Your task to perform on an android device: change alarm snooze length Image 0: 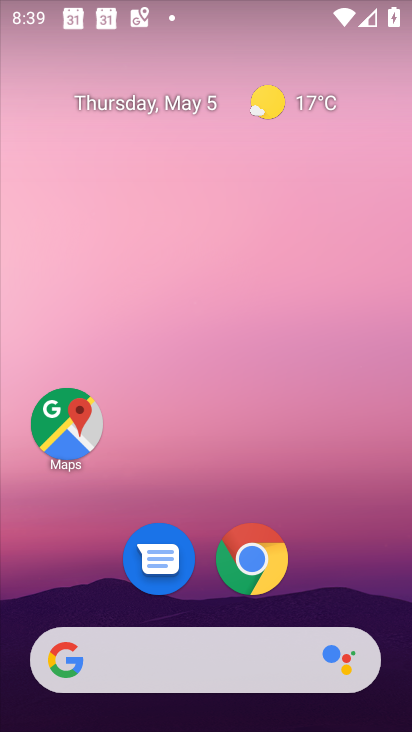
Step 0: drag from (368, 625) to (351, 2)
Your task to perform on an android device: change alarm snooze length Image 1: 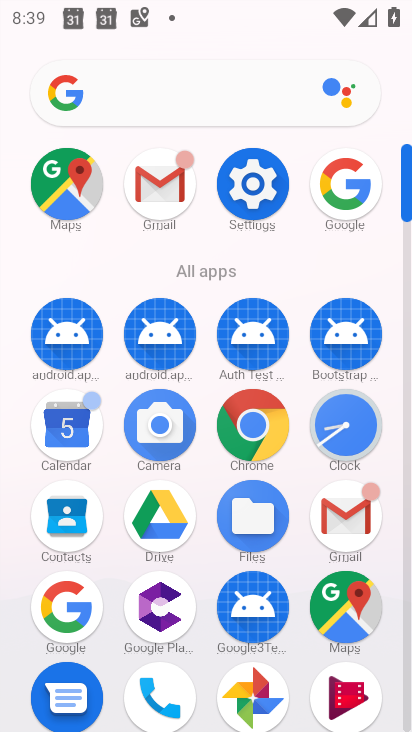
Step 1: click (345, 430)
Your task to perform on an android device: change alarm snooze length Image 2: 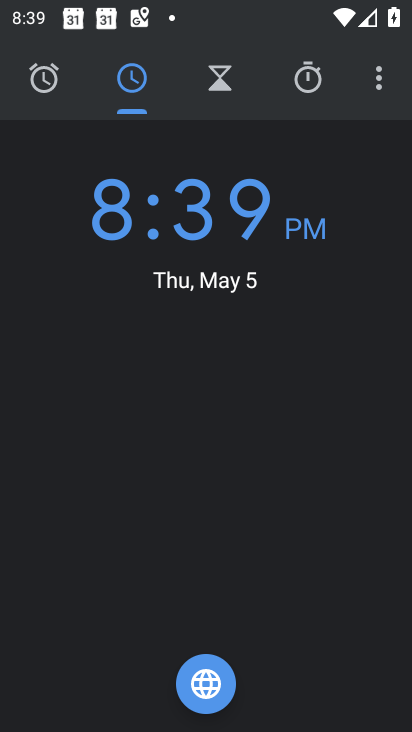
Step 2: click (376, 83)
Your task to perform on an android device: change alarm snooze length Image 3: 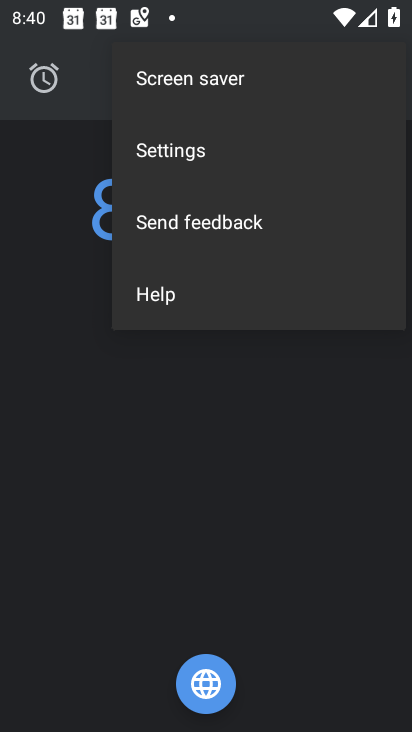
Step 3: click (170, 167)
Your task to perform on an android device: change alarm snooze length Image 4: 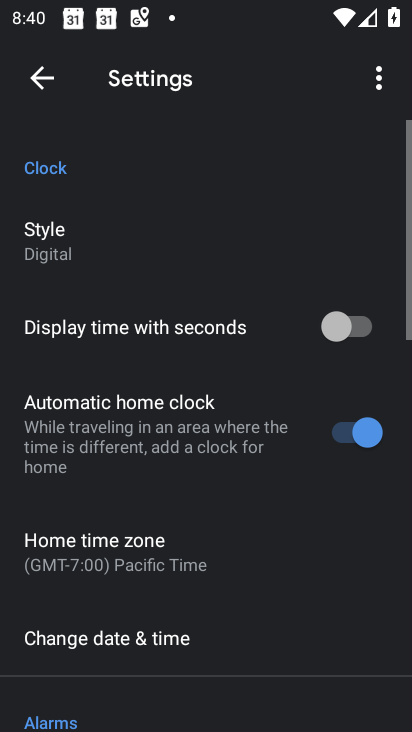
Step 4: click (172, 203)
Your task to perform on an android device: change alarm snooze length Image 5: 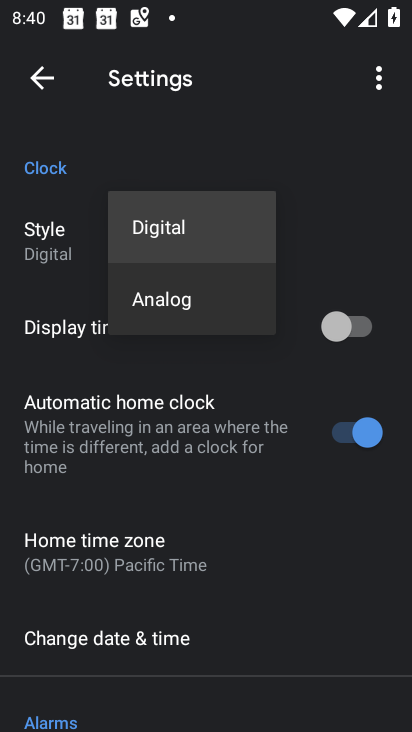
Step 5: drag from (269, 541) to (250, 184)
Your task to perform on an android device: change alarm snooze length Image 6: 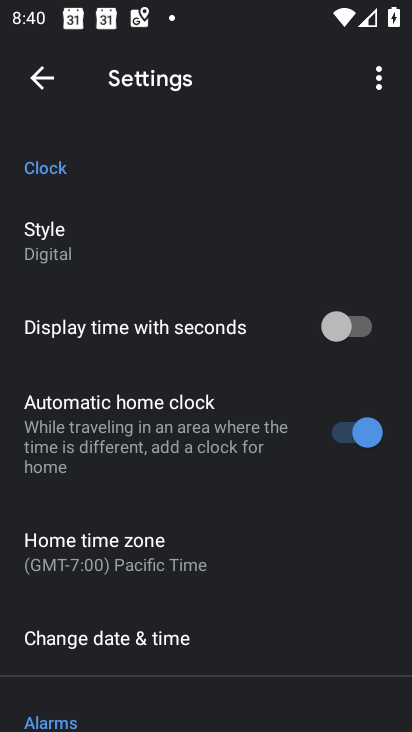
Step 6: drag from (265, 611) to (276, 161)
Your task to perform on an android device: change alarm snooze length Image 7: 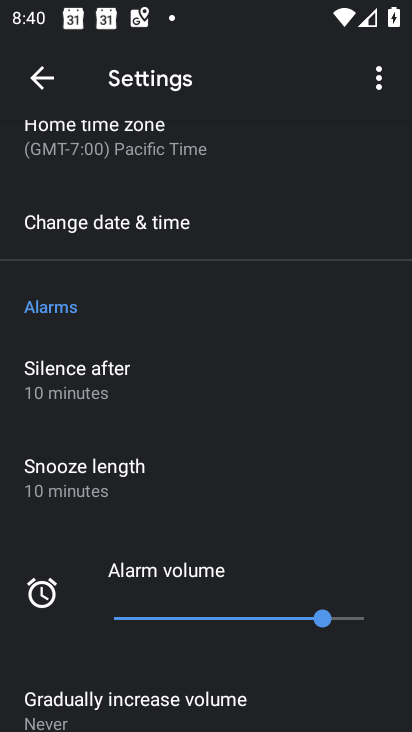
Step 7: click (49, 479)
Your task to perform on an android device: change alarm snooze length Image 8: 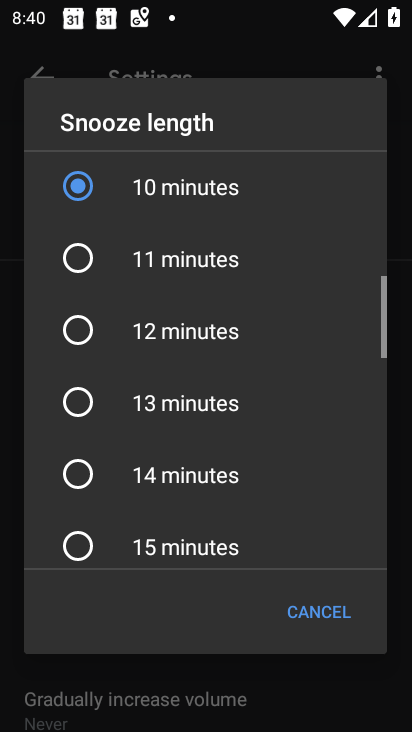
Step 8: click (74, 332)
Your task to perform on an android device: change alarm snooze length Image 9: 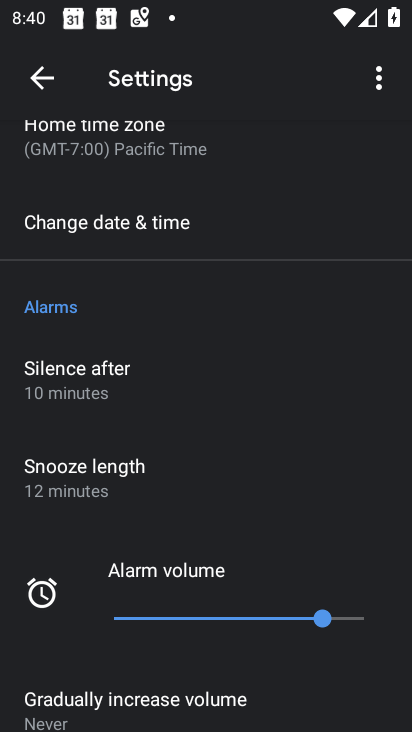
Step 9: task complete